Your task to perform on an android device: allow cookies in the chrome app Image 0: 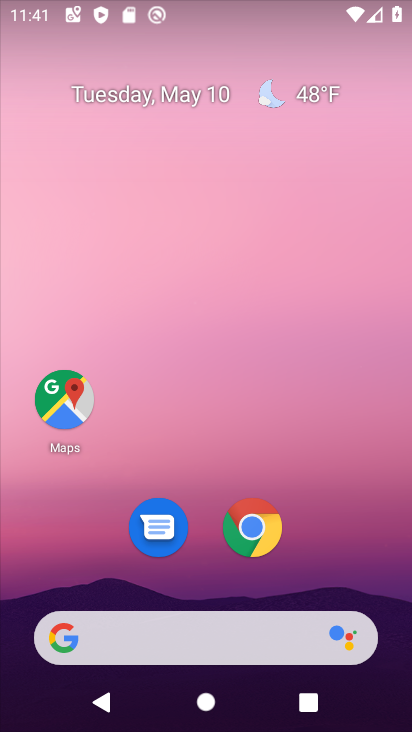
Step 0: click (248, 525)
Your task to perform on an android device: allow cookies in the chrome app Image 1: 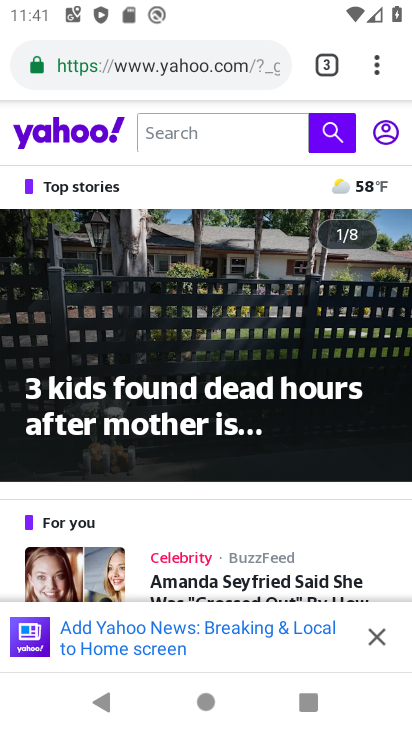
Step 1: click (377, 75)
Your task to perform on an android device: allow cookies in the chrome app Image 2: 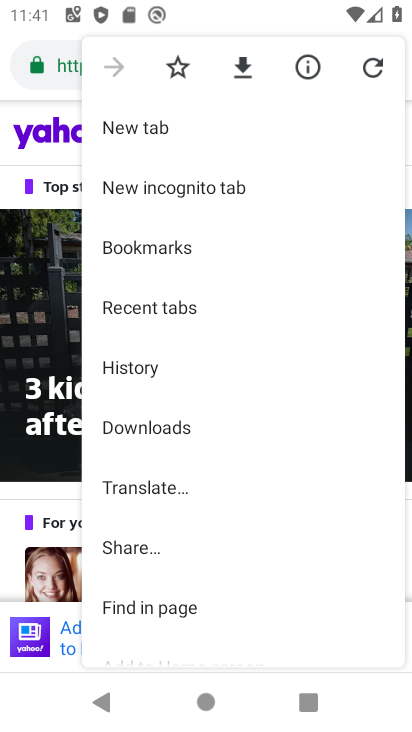
Step 2: drag from (207, 630) to (205, 233)
Your task to perform on an android device: allow cookies in the chrome app Image 3: 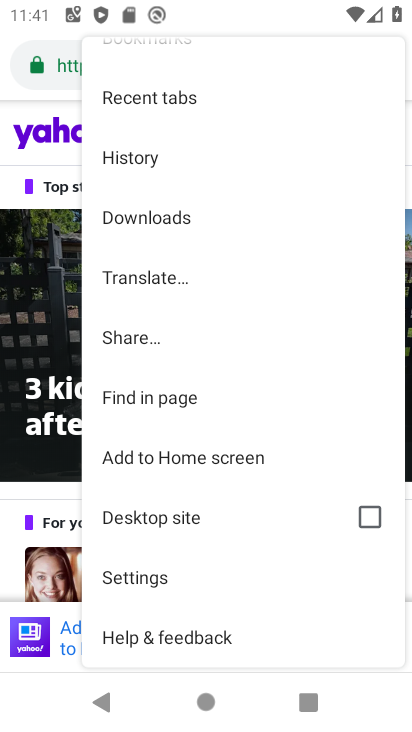
Step 3: click (160, 575)
Your task to perform on an android device: allow cookies in the chrome app Image 4: 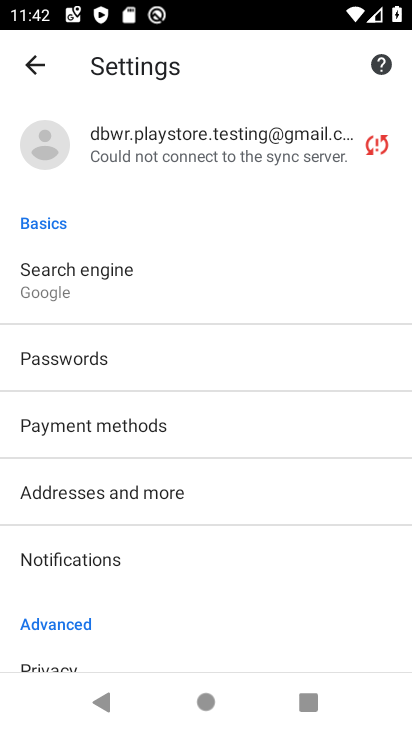
Step 4: drag from (102, 649) to (105, 269)
Your task to perform on an android device: allow cookies in the chrome app Image 5: 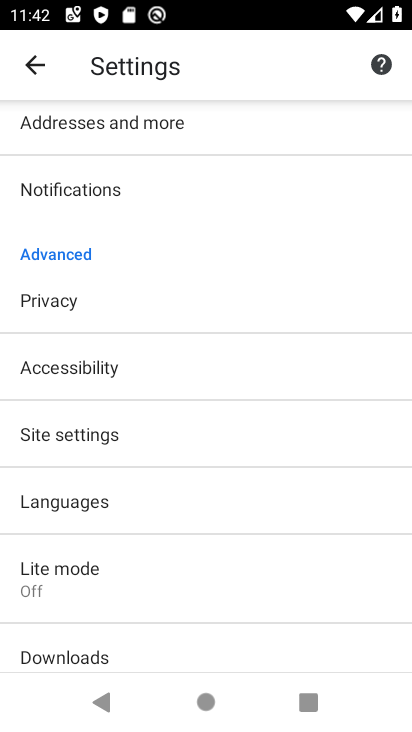
Step 5: click (96, 430)
Your task to perform on an android device: allow cookies in the chrome app Image 6: 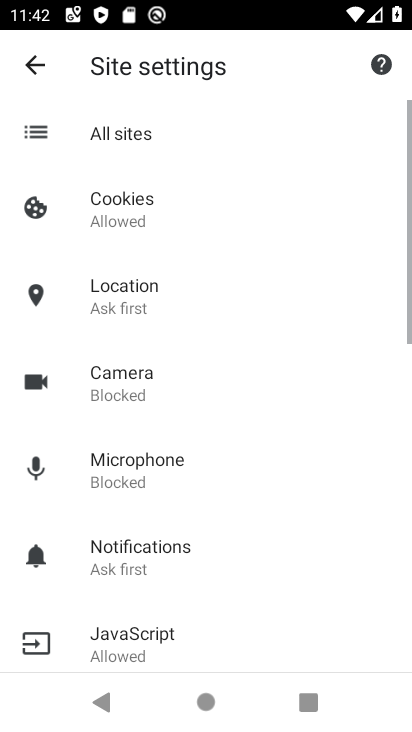
Step 6: click (123, 215)
Your task to perform on an android device: allow cookies in the chrome app Image 7: 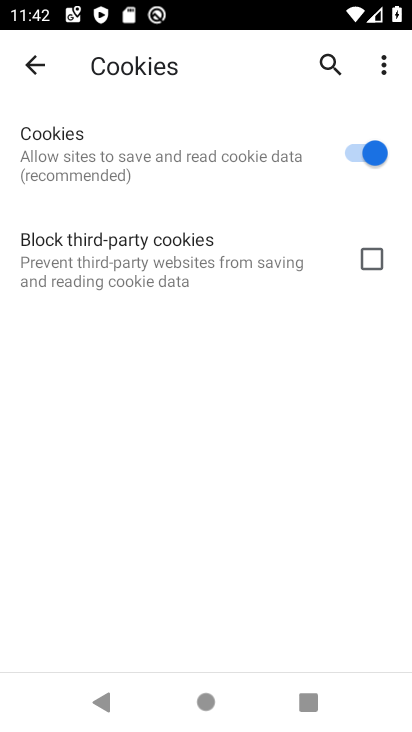
Step 7: task complete